Your task to perform on an android device: check storage Image 0: 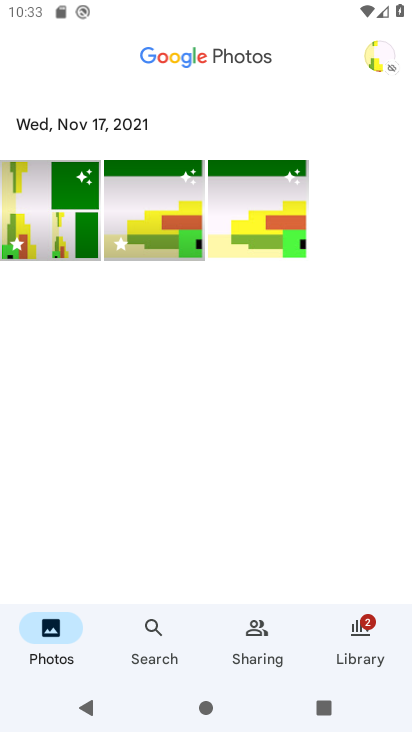
Step 0: press home button
Your task to perform on an android device: check storage Image 1: 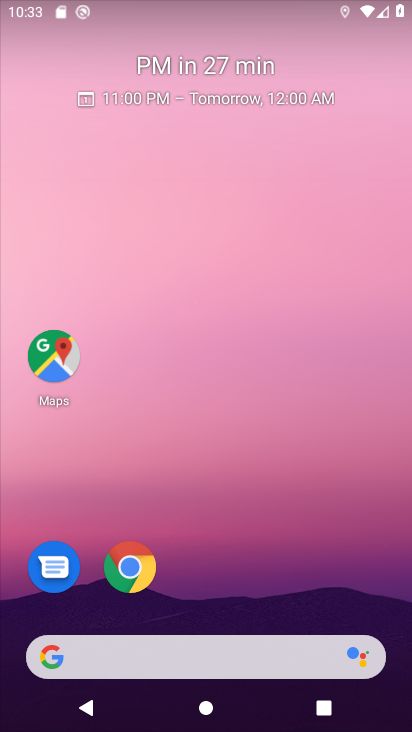
Step 1: drag from (192, 576) to (269, 0)
Your task to perform on an android device: check storage Image 2: 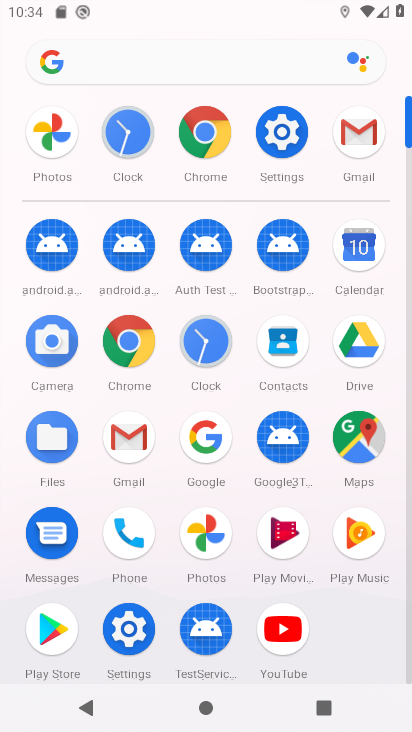
Step 2: click (273, 151)
Your task to perform on an android device: check storage Image 3: 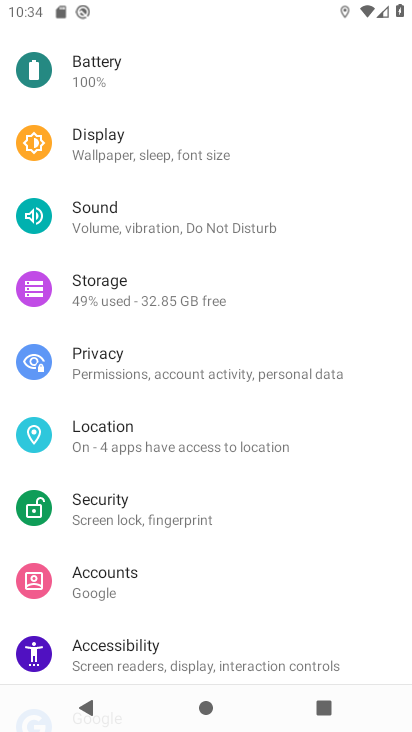
Step 3: click (149, 291)
Your task to perform on an android device: check storage Image 4: 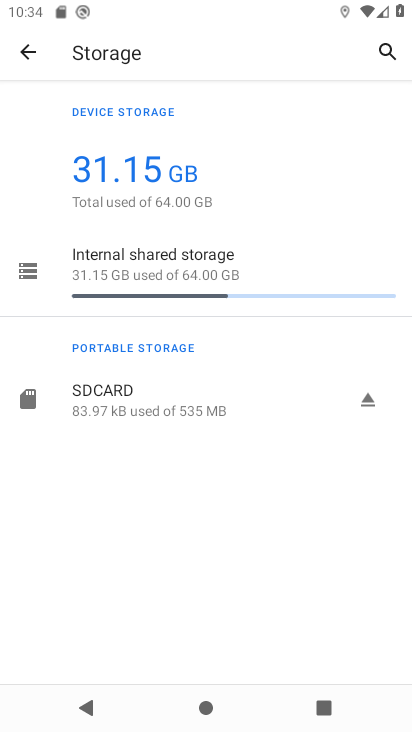
Step 4: task complete